Your task to perform on an android device: Open eBay Image 0: 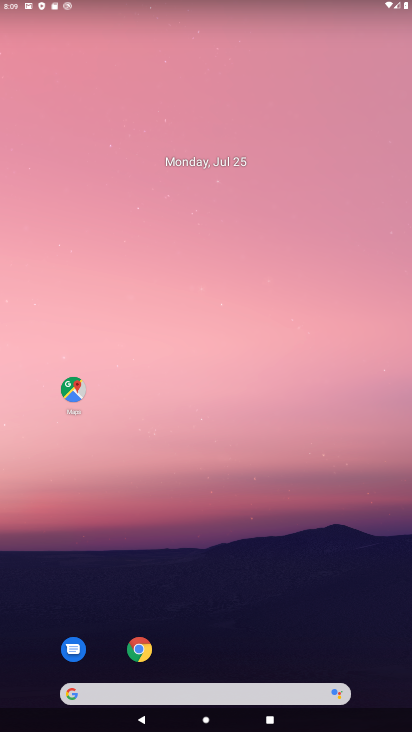
Step 0: click (138, 651)
Your task to perform on an android device: Open eBay Image 1: 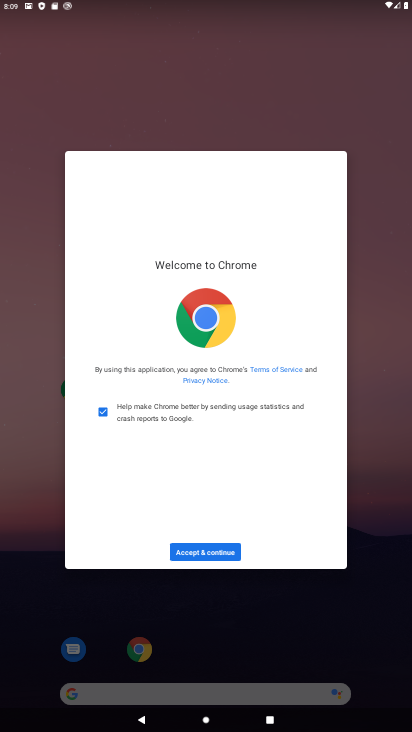
Step 1: click (214, 549)
Your task to perform on an android device: Open eBay Image 2: 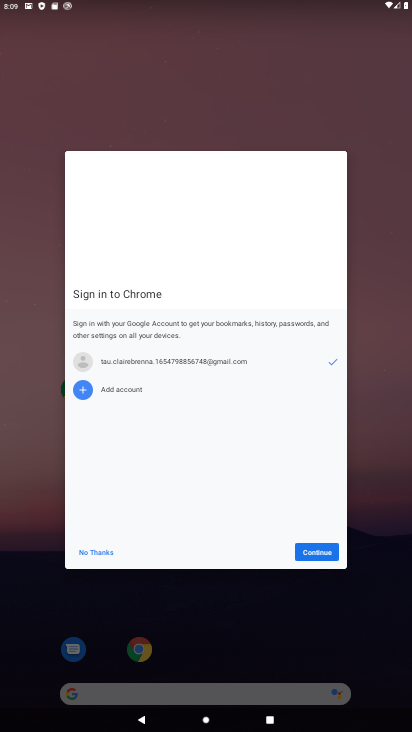
Step 2: click (302, 549)
Your task to perform on an android device: Open eBay Image 3: 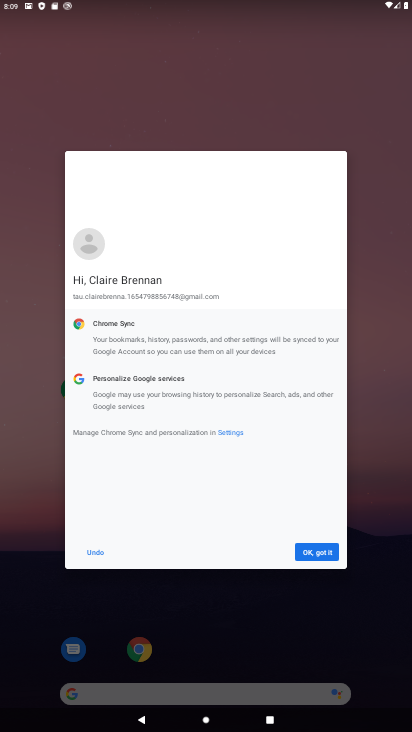
Step 3: click (302, 549)
Your task to perform on an android device: Open eBay Image 4: 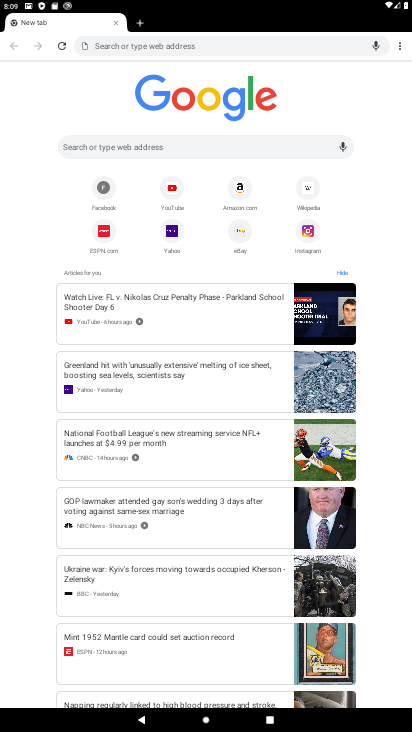
Step 4: click (235, 226)
Your task to perform on an android device: Open eBay Image 5: 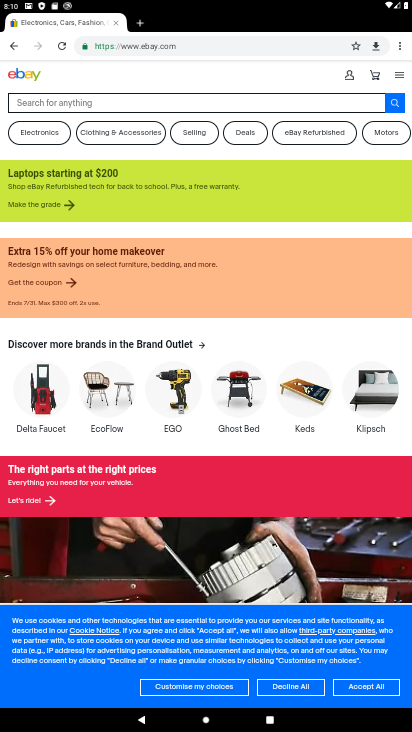
Step 5: task complete